Your task to perform on an android device: Turn on the flashlight Image 0: 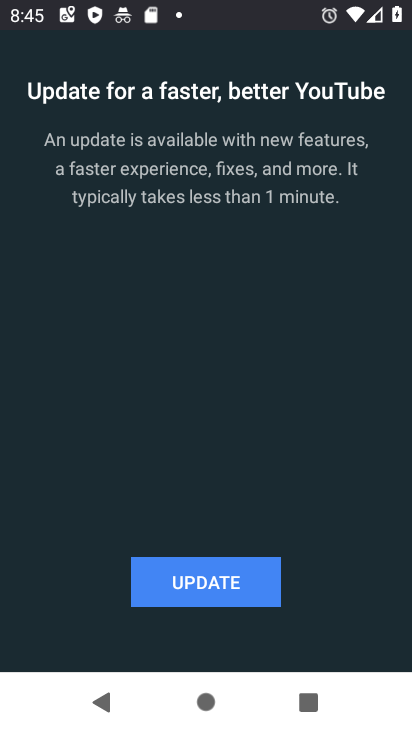
Step 0: press home button
Your task to perform on an android device: Turn on the flashlight Image 1: 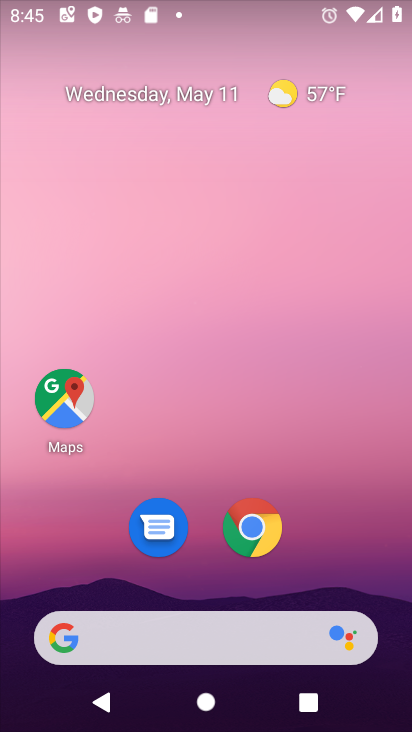
Step 1: task complete